Your task to perform on an android device: What's the weather going to be this weekend? Image 0: 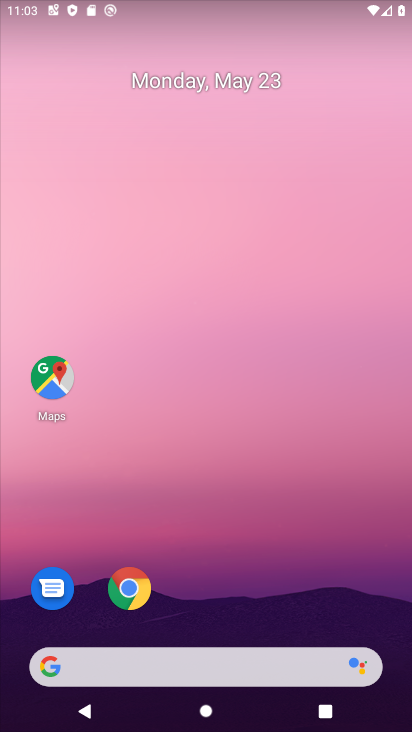
Step 0: click (130, 587)
Your task to perform on an android device: What's the weather going to be this weekend? Image 1: 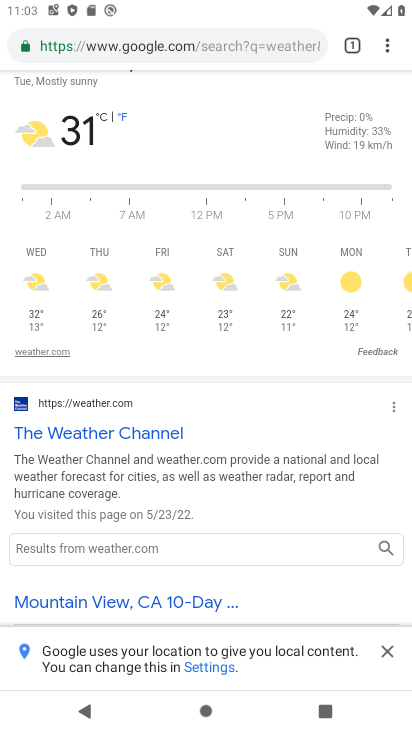
Step 1: task complete